Your task to perform on an android device: Open the Play Movies app and select the watchlist tab. Image 0: 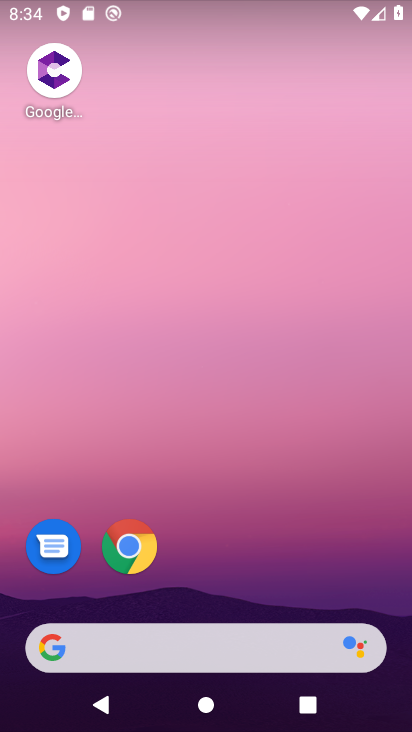
Step 0: drag from (91, 506) to (183, 123)
Your task to perform on an android device: Open the Play Movies app and select the watchlist tab. Image 1: 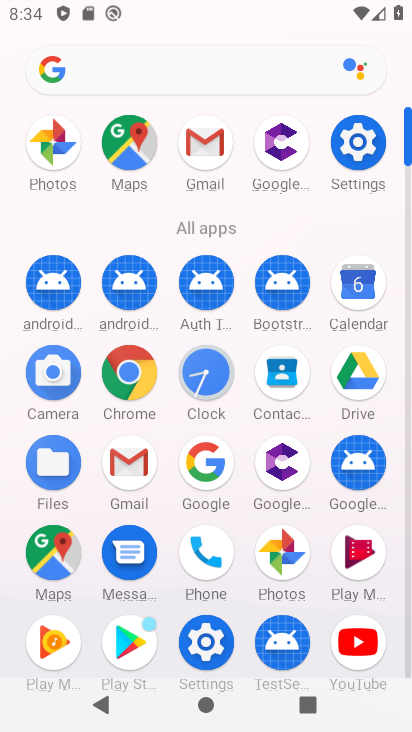
Step 1: click (369, 565)
Your task to perform on an android device: Open the Play Movies app and select the watchlist tab. Image 2: 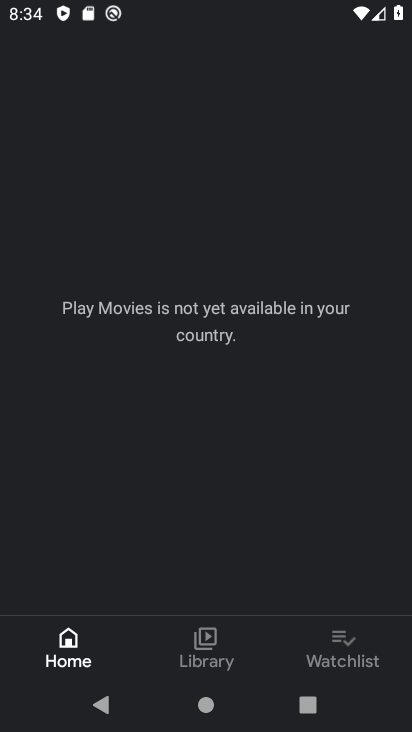
Step 2: click (338, 621)
Your task to perform on an android device: Open the Play Movies app and select the watchlist tab. Image 3: 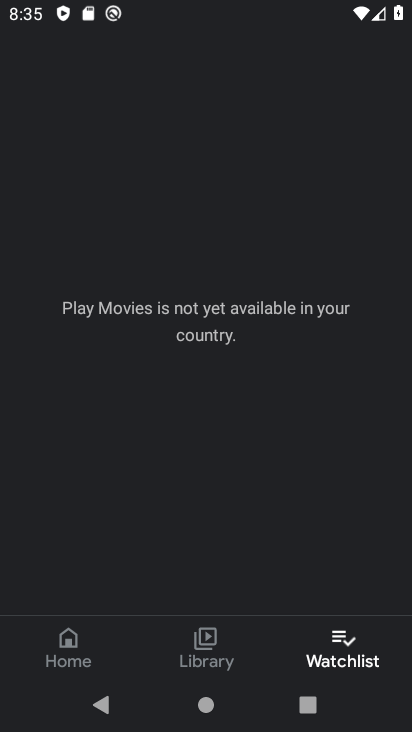
Step 3: task complete